Your task to perform on an android device: Open sound settings Image 0: 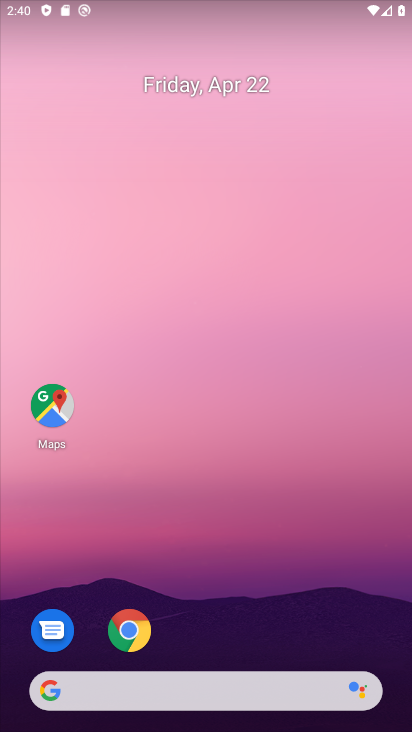
Step 0: drag from (356, 608) to (367, 172)
Your task to perform on an android device: Open sound settings Image 1: 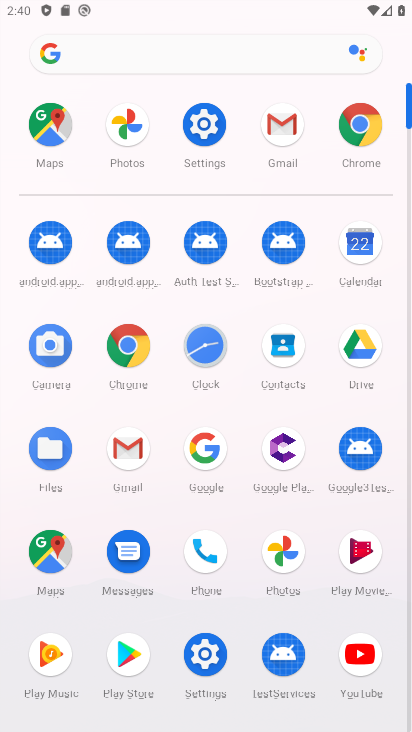
Step 1: click (216, 659)
Your task to perform on an android device: Open sound settings Image 2: 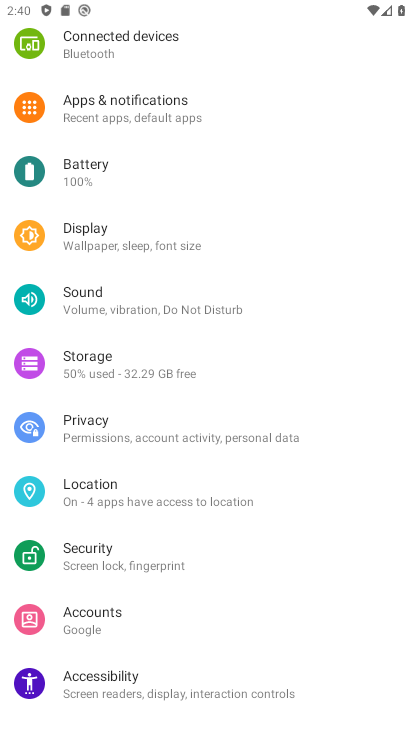
Step 2: click (102, 301)
Your task to perform on an android device: Open sound settings Image 3: 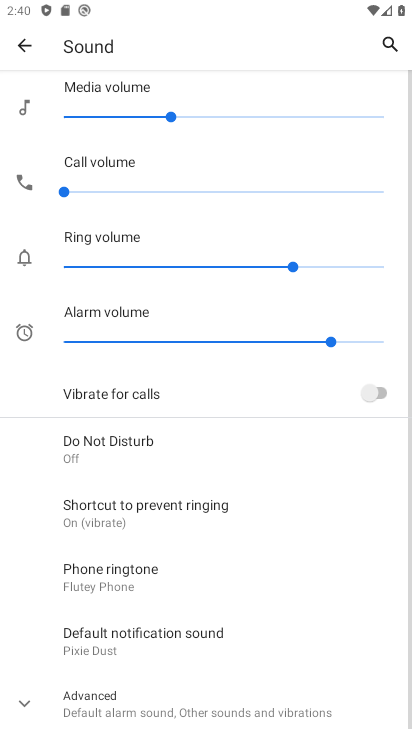
Step 3: task complete